Your task to perform on an android device: change the upload size in google photos Image 0: 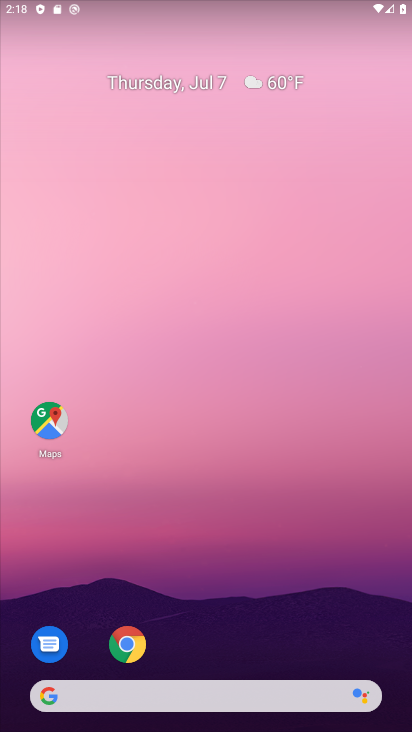
Step 0: drag from (209, 697) to (198, 506)
Your task to perform on an android device: change the upload size in google photos Image 1: 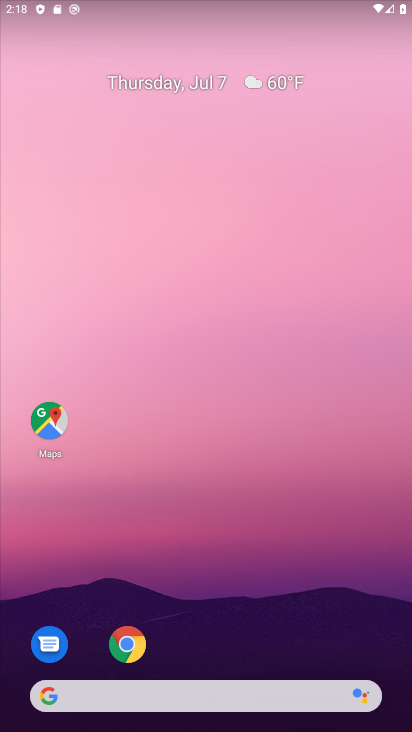
Step 1: drag from (206, 687) to (306, 75)
Your task to perform on an android device: change the upload size in google photos Image 2: 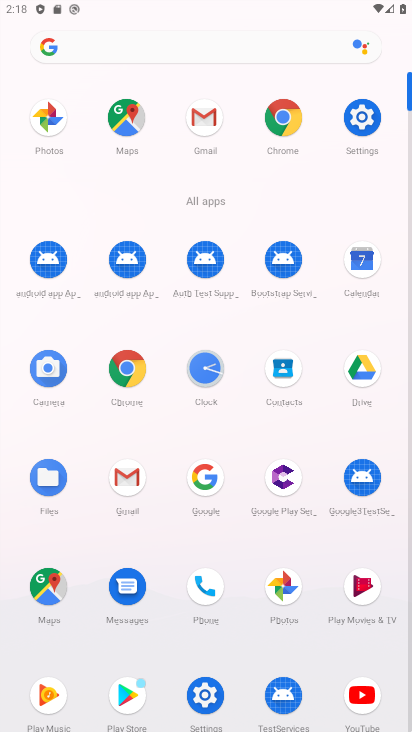
Step 2: click (306, 578)
Your task to perform on an android device: change the upload size in google photos Image 3: 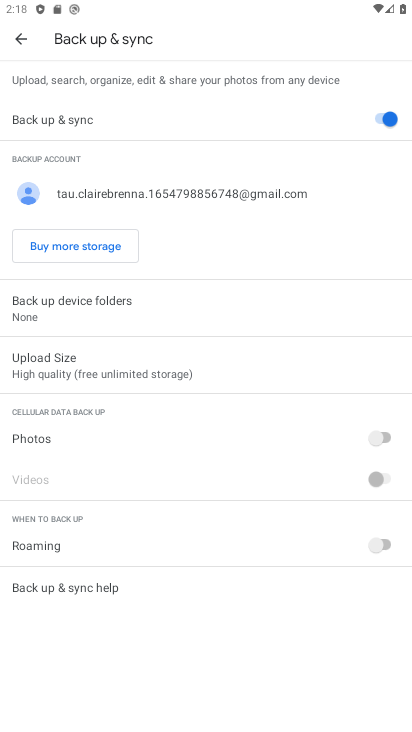
Step 3: click (108, 377)
Your task to perform on an android device: change the upload size in google photos Image 4: 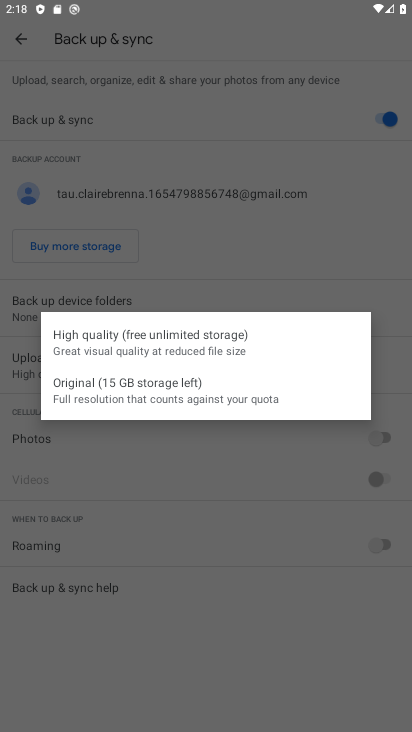
Step 4: click (108, 377)
Your task to perform on an android device: change the upload size in google photos Image 5: 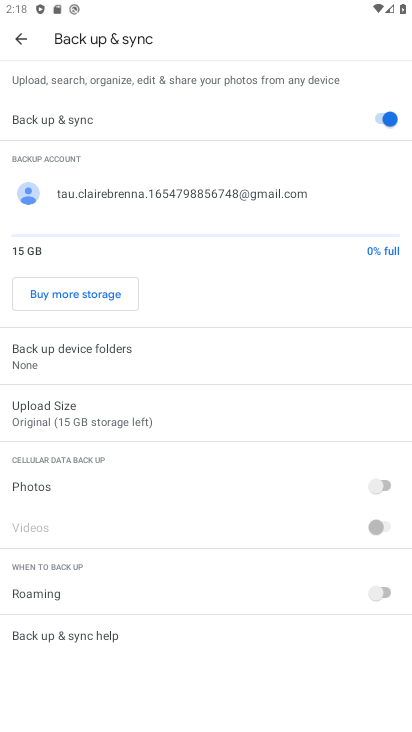
Step 5: task complete